Your task to perform on an android device: all mails in gmail Image 0: 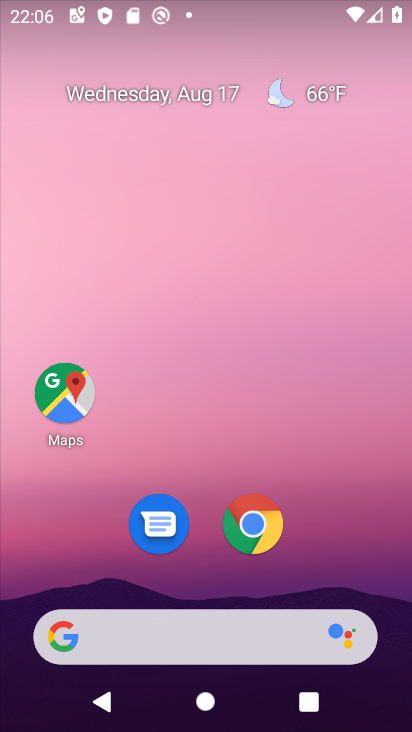
Step 0: drag from (328, 541) to (272, 13)
Your task to perform on an android device: all mails in gmail Image 1: 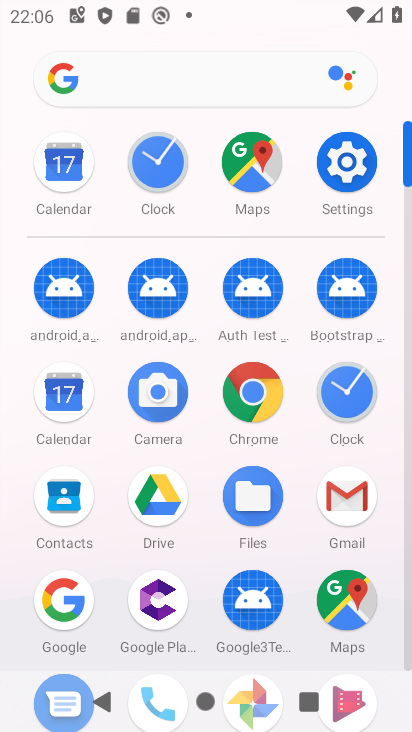
Step 1: click (350, 488)
Your task to perform on an android device: all mails in gmail Image 2: 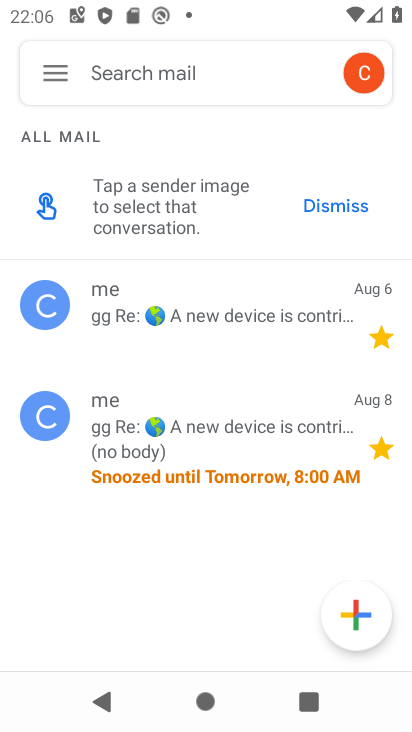
Step 2: task complete